Your task to perform on an android device: move an email to a new category in the gmail app Image 0: 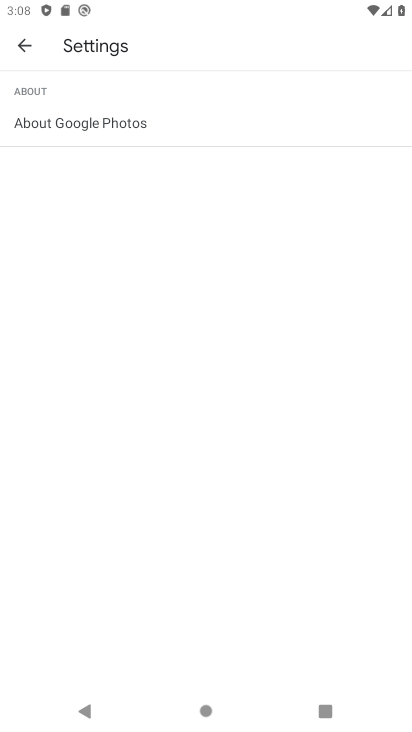
Step 0: click (25, 51)
Your task to perform on an android device: move an email to a new category in the gmail app Image 1: 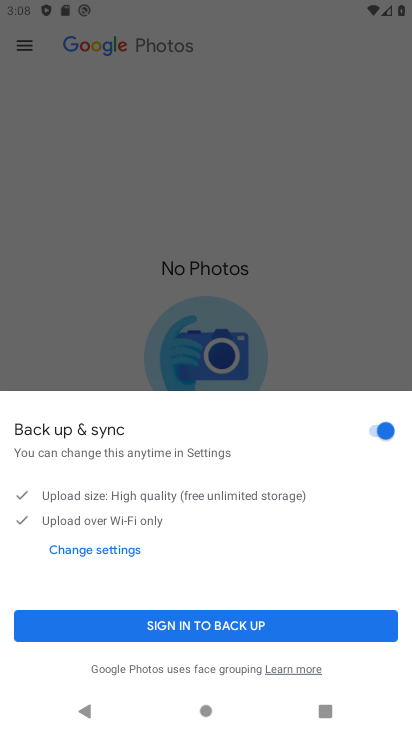
Step 1: click (345, 342)
Your task to perform on an android device: move an email to a new category in the gmail app Image 2: 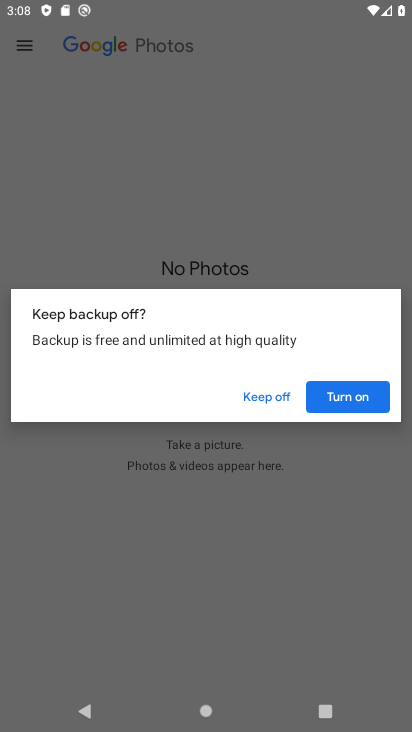
Step 2: press back button
Your task to perform on an android device: move an email to a new category in the gmail app Image 3: 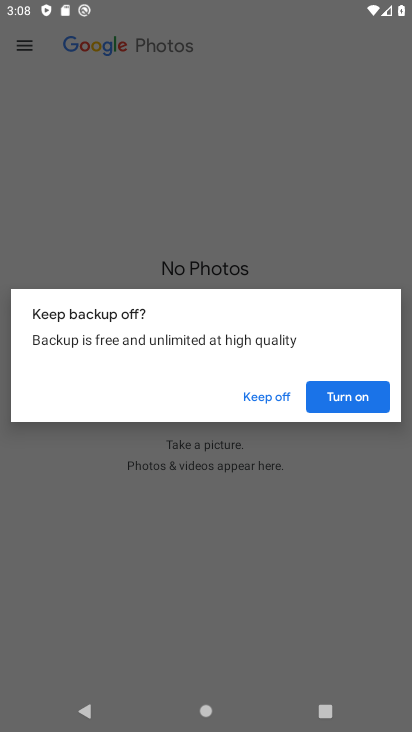
Step 3: click (285, 389)
Your task to perform on an android device: move an email to a new category in the gmail app Image 4: 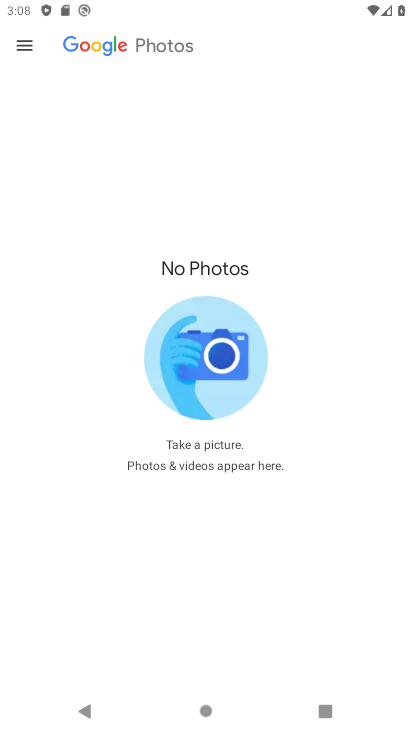
Step 4: press home button
Your task to perform on an android device: move an email to a new category in the gmail app Image 5: 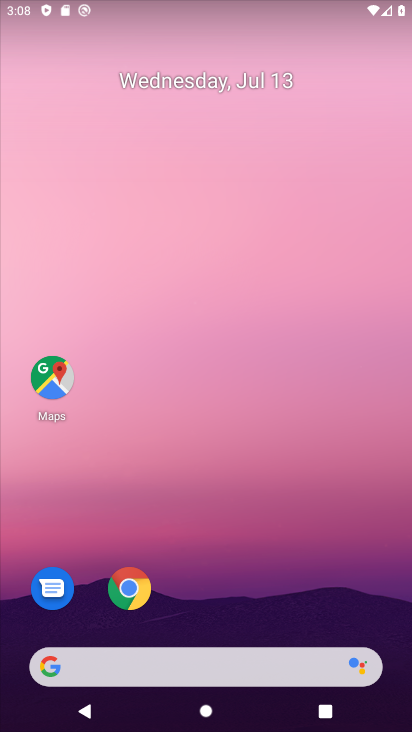
Step 5: drag from (257, 671) to (125, 125)
Your task to perform on an android device: move an email to a new category in the gmail app Image 6: 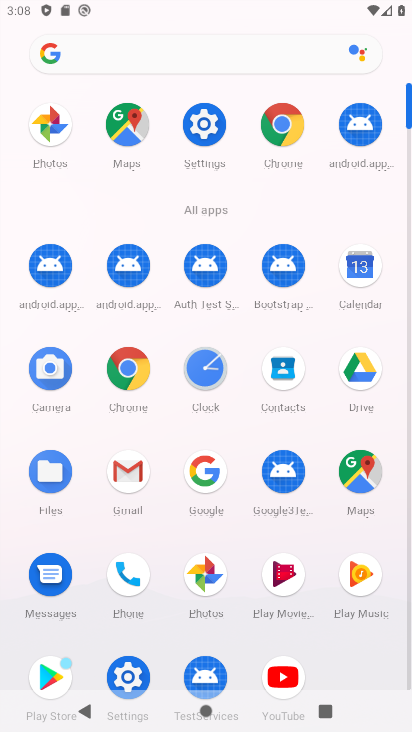
Step 6: click (120, 467)
Your task to perform on an android device: move an email to a new category in the gmail app Image 7: 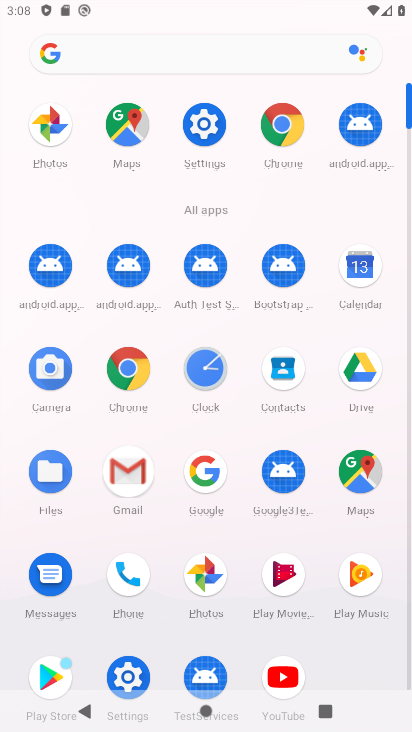
Step 7: click (120, 467)
Your task to perform on an android device: move an email to a new category in the gmail app Image 8: 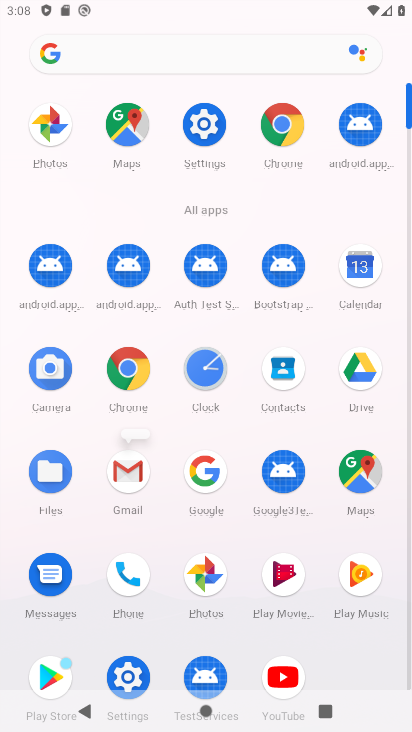
Step 8: click (120, 467)
Your task to perform on an android device: move an email to a new category in the gmail app Image 9: 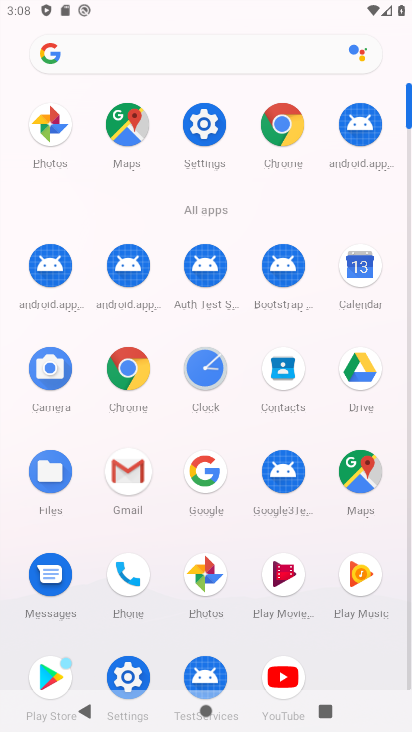
Step 9: click (121, 467)
Your task to perform on an android device: move an email to a new category in the gmail app Image 10: 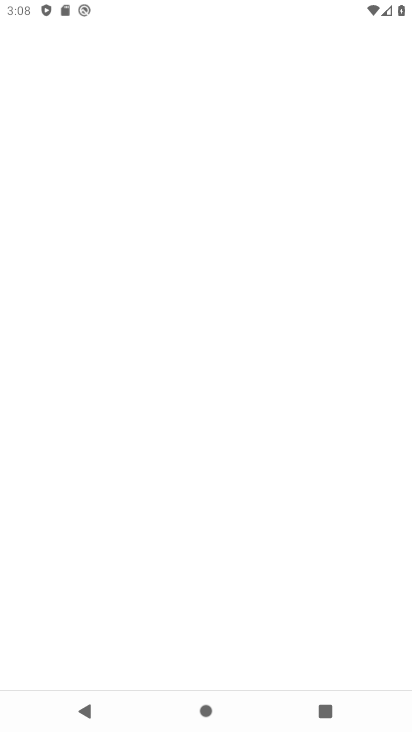
Step 10: click (131, 461)
Your task to perform on an android device: move an email to a new category in the gmail app Image 11: 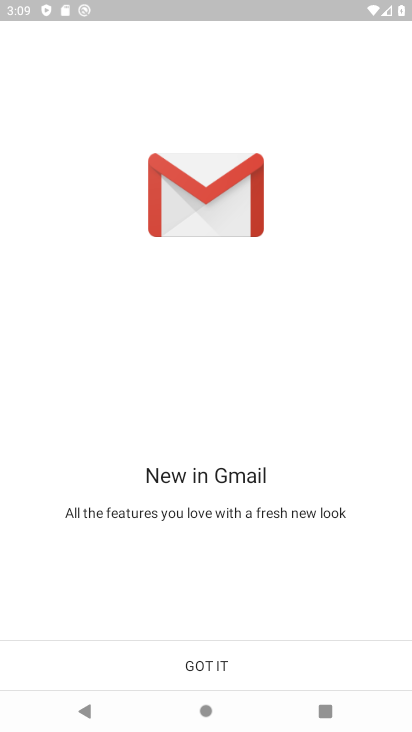
Step 11: click (207, 665)
Your task to perform on an android device: move an email to a new category in the gmail app Image 12: 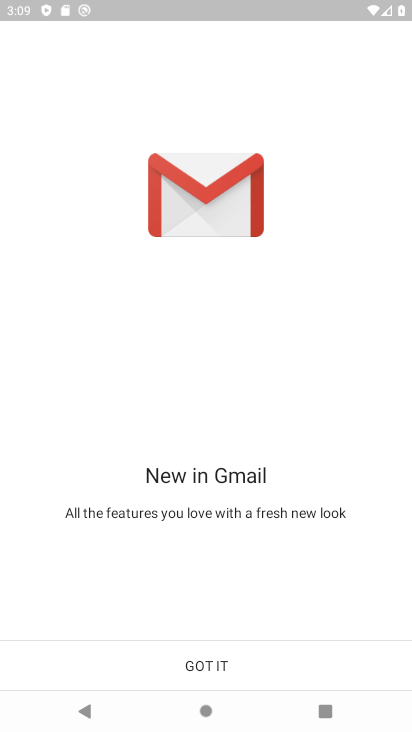
Step 12: click (216, 664)
Your task to perform on an android device: move an email to a new category in the gmail app Image 13: 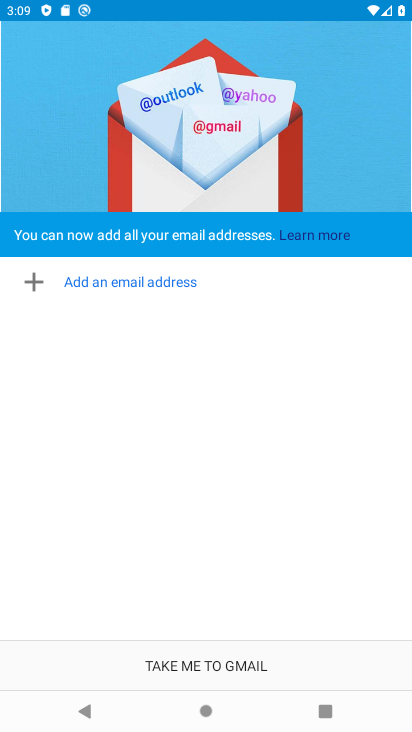
Step 13: click (215, 663)
Your task to perform on an android device: move an email to a new category in the gmail app Image 14: 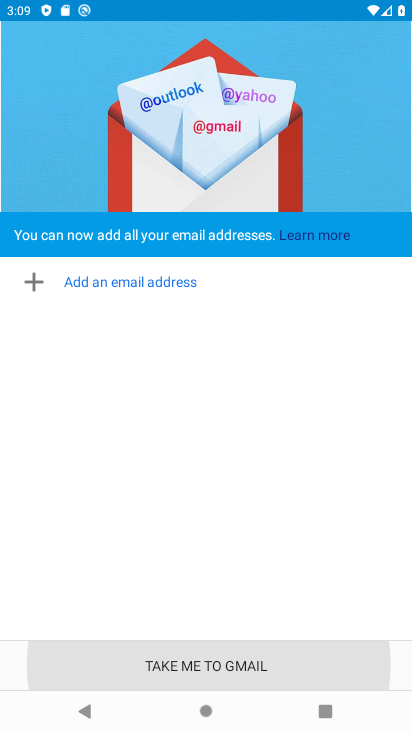
Step 14: click (215, 663)
Your task to perform on an android device: move an email to a new category in the gmail app Image 15: 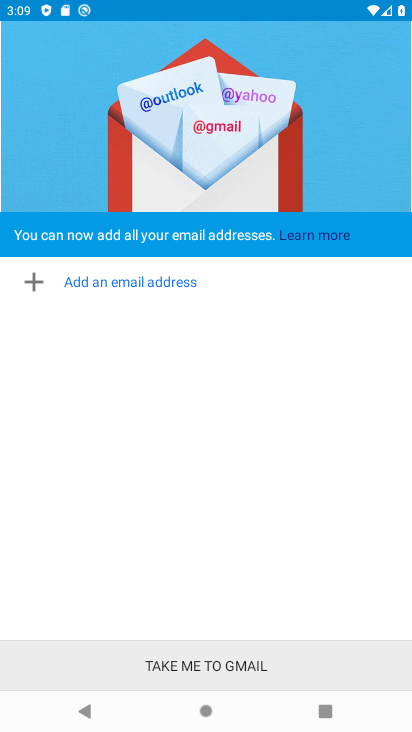
Step 15: click (215, 663)
Your task to perform on an android device: move an email to a new category in the gmail app Image 16: 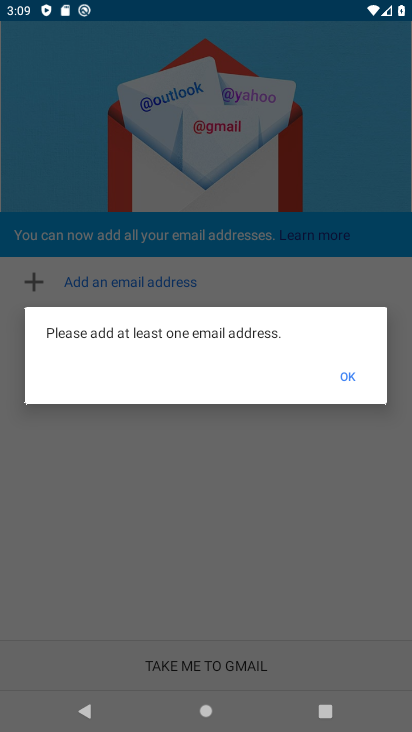
Step 16: click (352, 379)
Your task to perform on an android device: move an email to a new category in the gmail app Image 17: 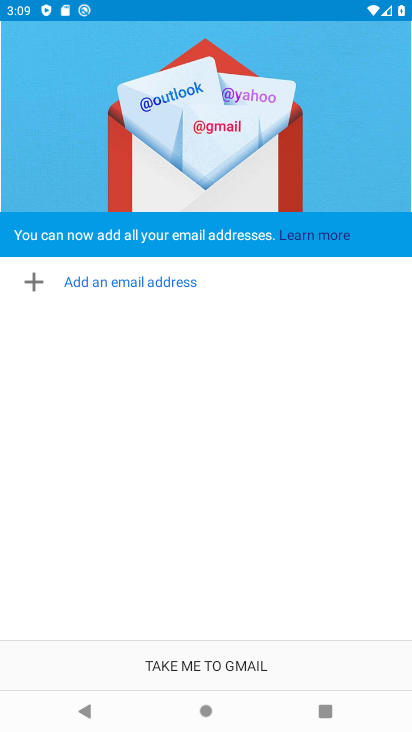
Step 17: task complete